Your task to perform on an android device: turn on sleep mode Image 0: 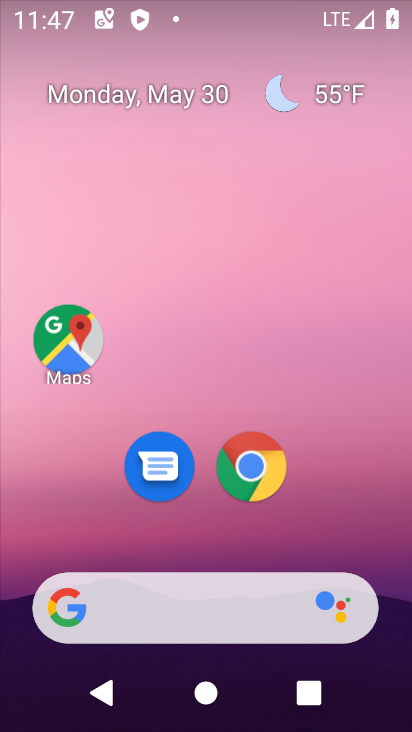
Step 0: drag from (371, 563) to (358, 116)
Your task to perform on an android device: turn on sleep mode Image 1: 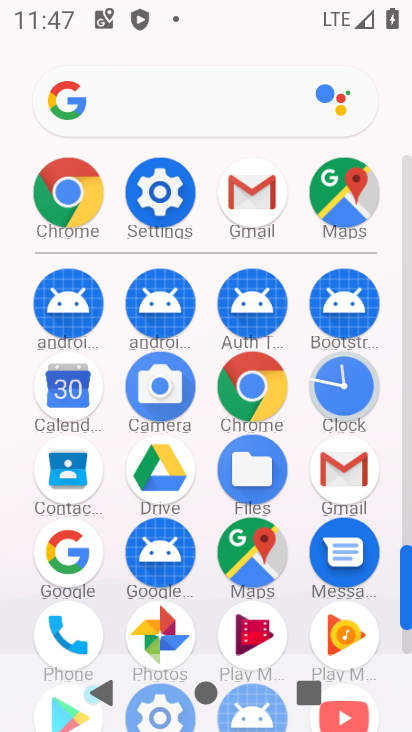
Step 1: drag from (357, 116) to (369, 47)
Your task to perform on an android device: turn on sleep mode Image 2: 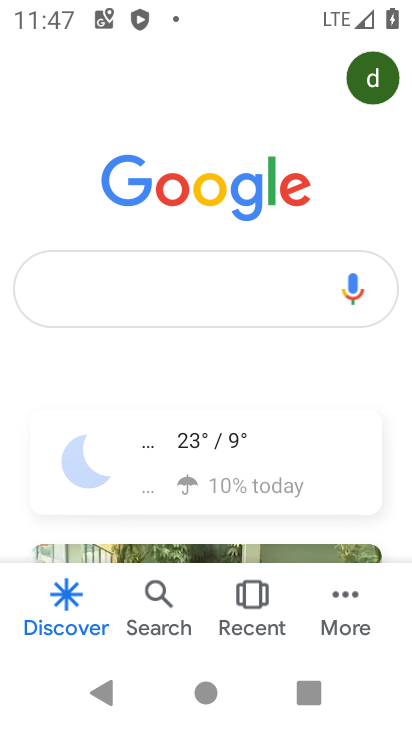
Step 2: press home button
Your task to perform on an android device: turn on sleep mode Image 3: 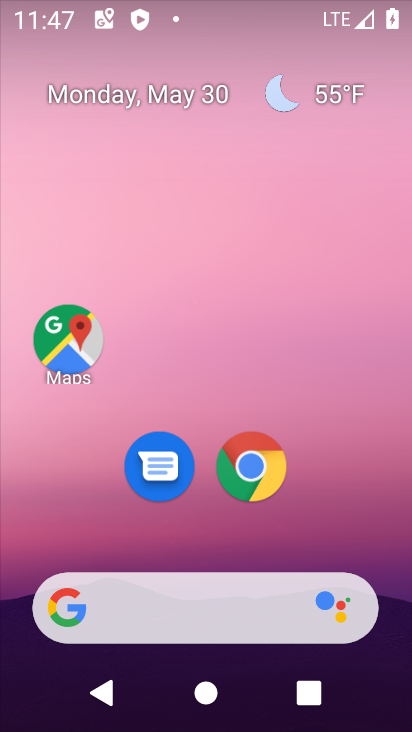
Step 3: drag from (343, 11) to (292, 525)
Your task to perform on an android device: turn on sleep mode Image 4: 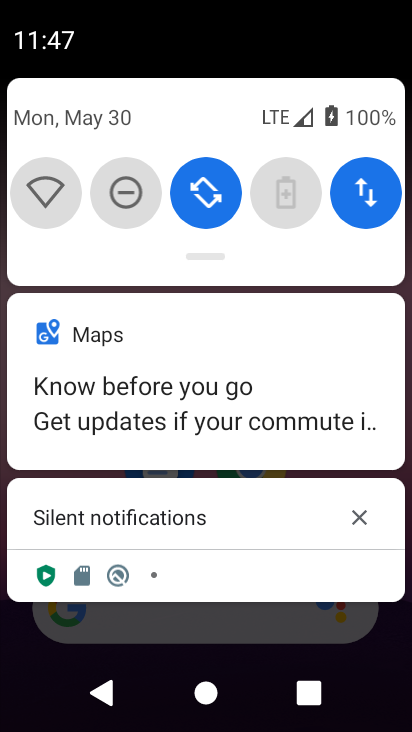
Step 4: drag from (208, 270) to (196, 634)
Your task to perform on an android device: turn on sleep mode Image 5: 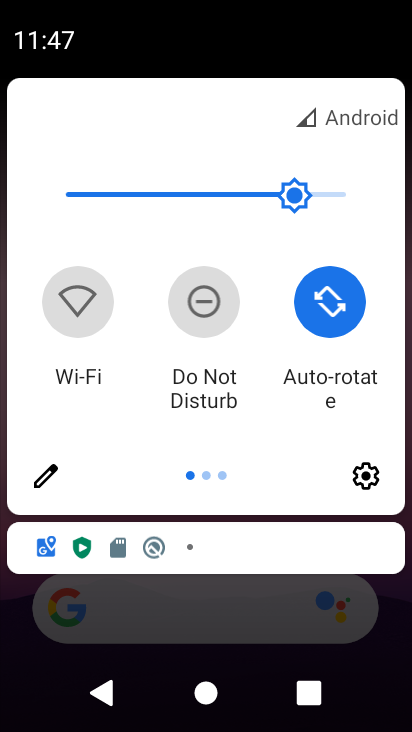
Step 5: click (48, 471)
Your task to perform on an android device: turn on sleep mode Image 6: 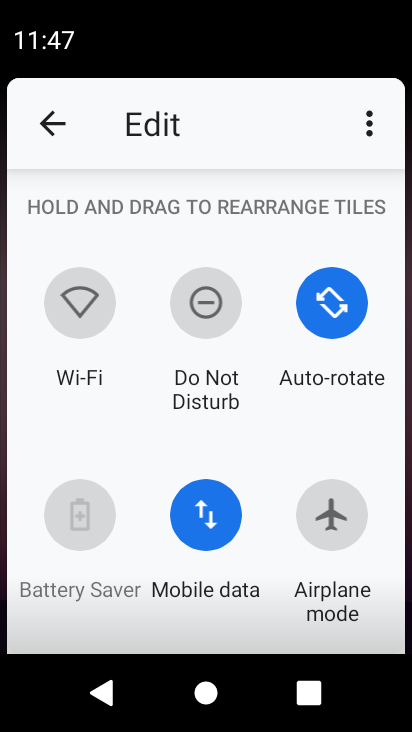
Step 6: task complete